Your task to perform on an android device: change the clock display to digital Image 0: 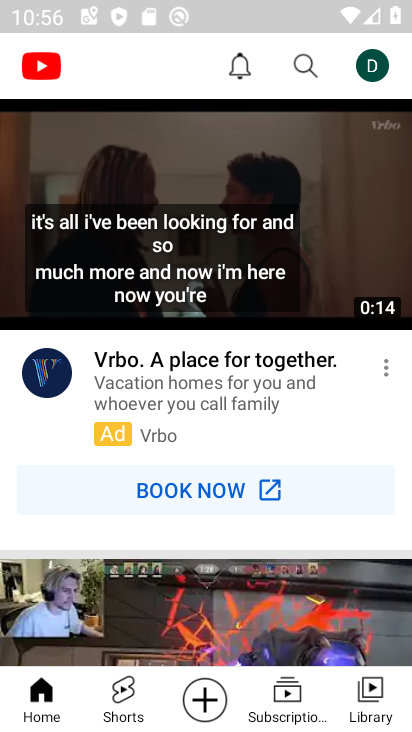
Step 0: press home button
Your task to perform on an android device: change the clock display to digital Image 1: 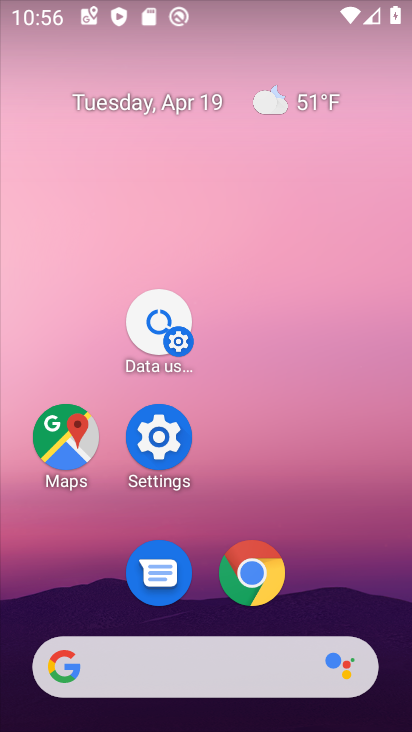
Step 1: drag from (346, 564) to (337, 21)
Your task to perform on an android device: change the clock display to digital Image 2: 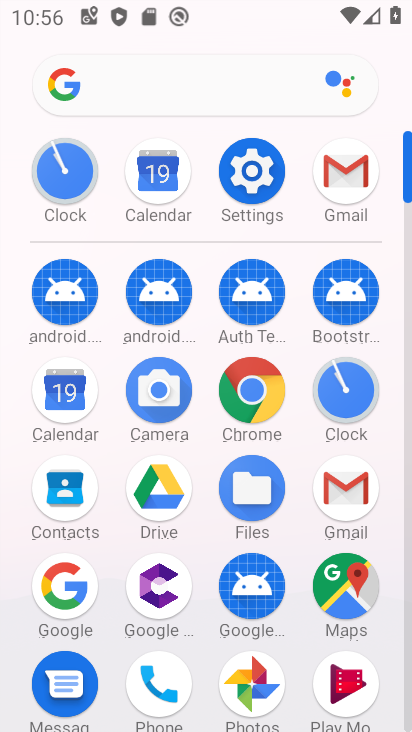
Step 2: click (55, 178)
Your task to perform on an android device: change the clock display to digital Image 3: 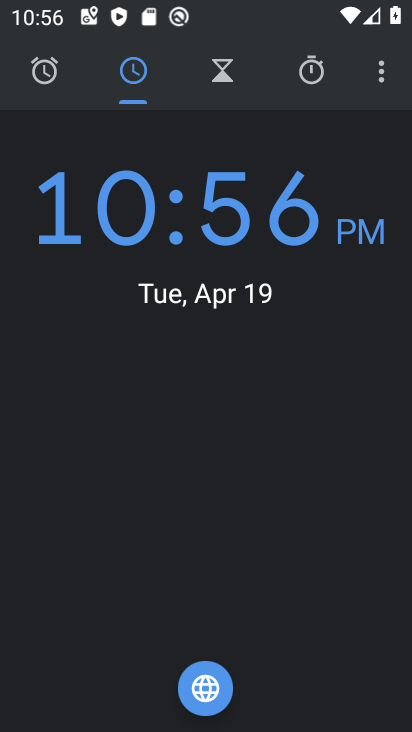
Step 3: click (383, 78)
Your task to perform on an android device: change the clock display to digital Image 4: 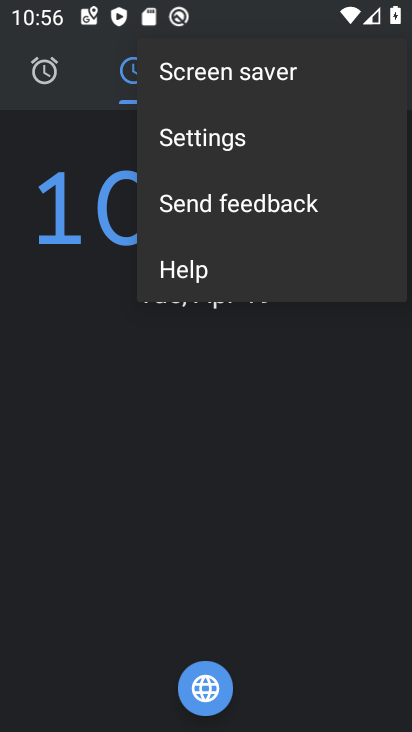
Step 4: click (209, 145)
Your task to perform on an android device: change the clock display to digital Image 5: 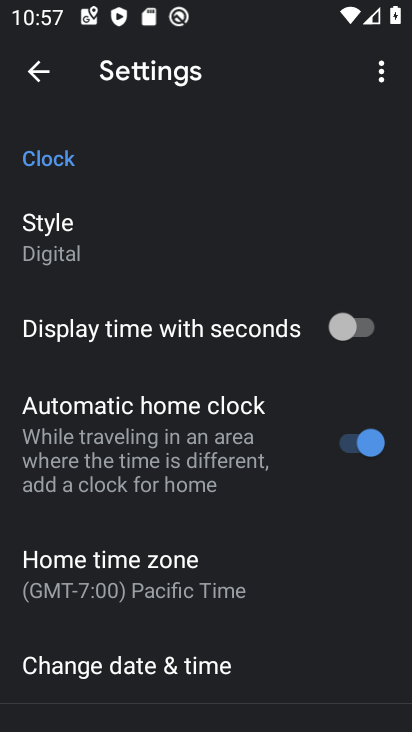
Step 5: task complete